Your task to perform on an android device: Open my contact list Image 0: 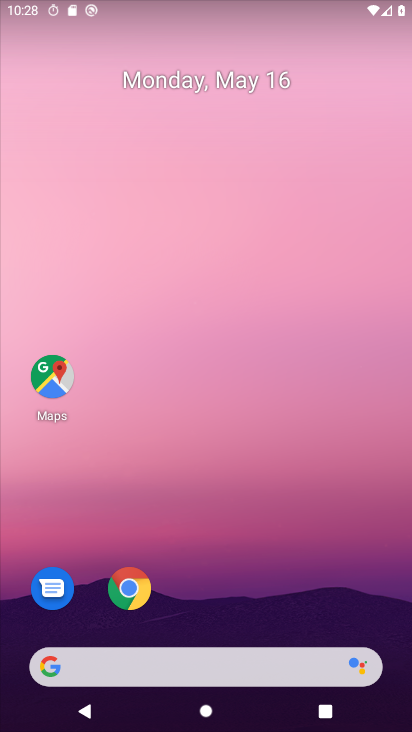
Step 0: drag from (224, 620) to (262, 173)
Your task to perform on an android device: Open my contact list Image 1: 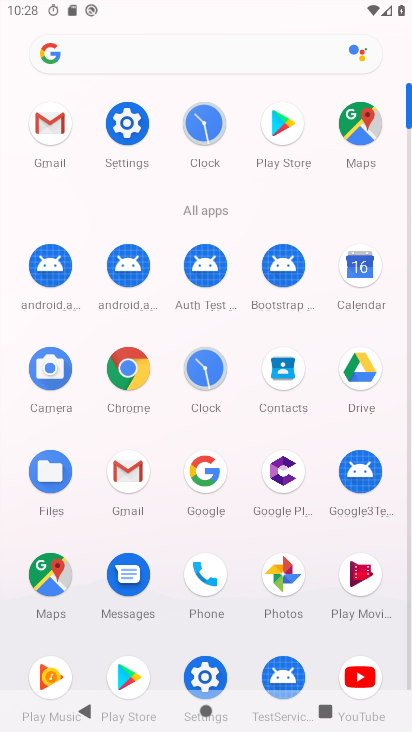
Step 1: click (281, 363)
Your task to perform on an android device: Open my contact list Image 2: 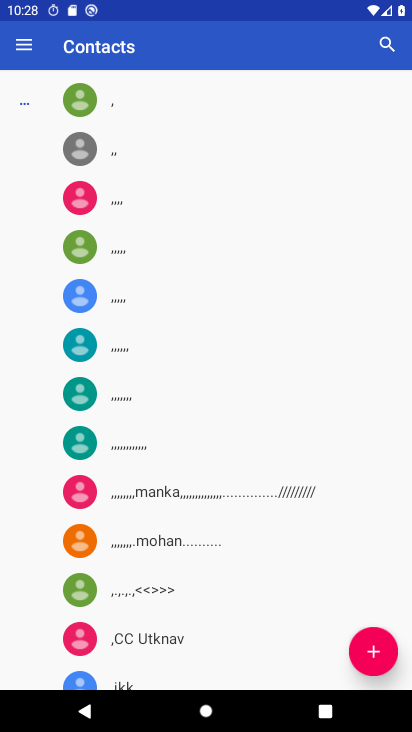
Step 2: task complete